Your task to perform on an android device: turn off notifications in google photos Image 0: 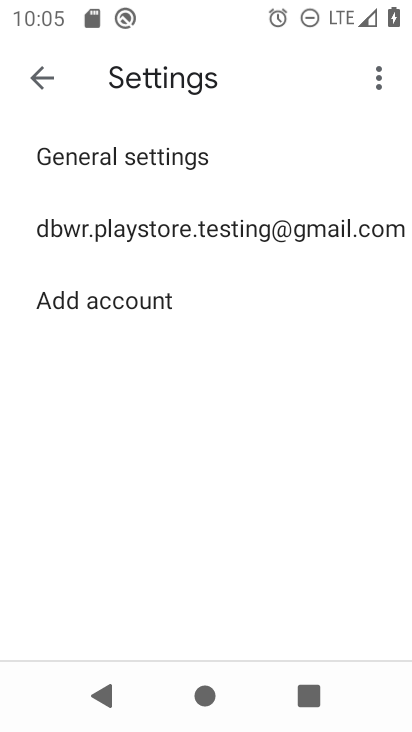
Step 0: press home button
Your task to perform on an android device: turn off notifications in google photos Image 1: 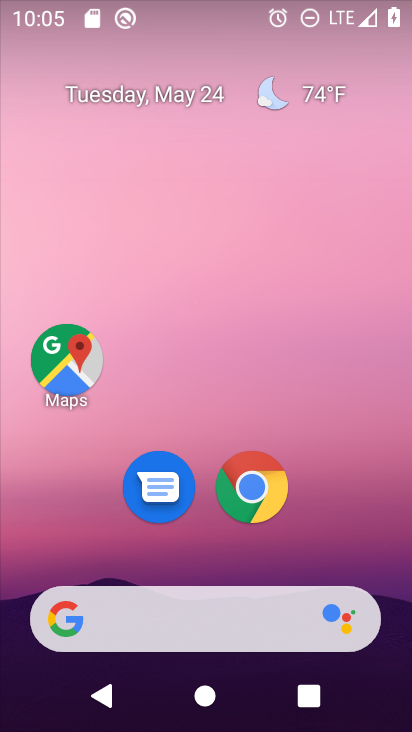
Step 1: drag from (342, 569) to (339, 12)
Your task to perform on an android device: turn off notifications in google photos Image 2: 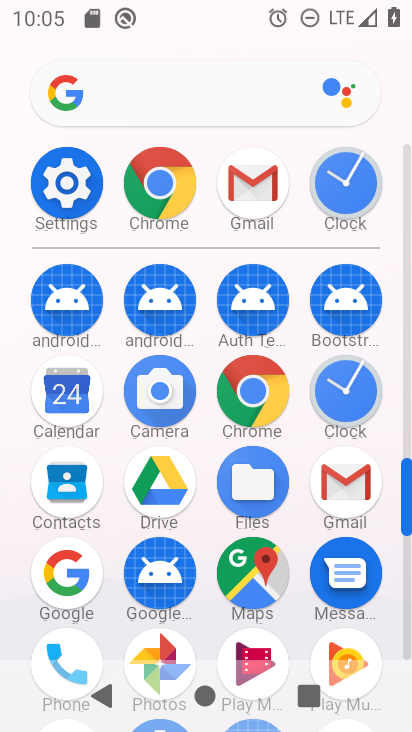
Step 2: click (408, 398)
Your task to perform on an android device: turn off notifications in google photos Image 3: 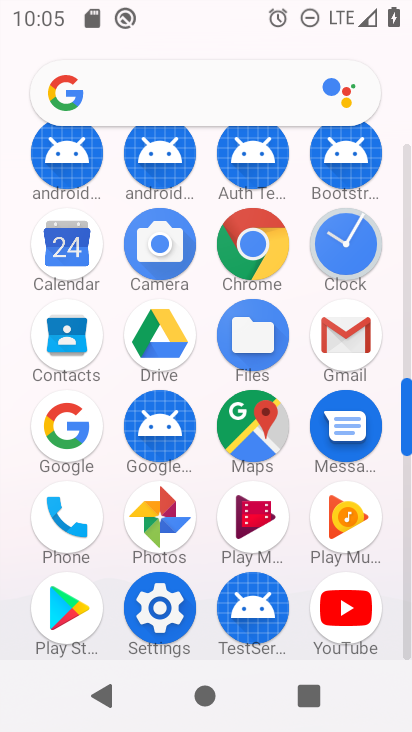
Step 3: click (160, 521)
Your task to perform on an android device: turn off notifications in google photos Image 4: 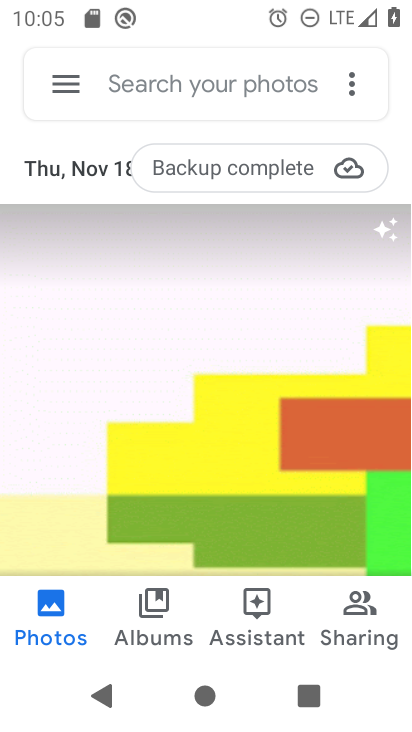
Step 4: click (58, 88)
Your task to perform on an android device: turn off notifications in google photos Image 5: 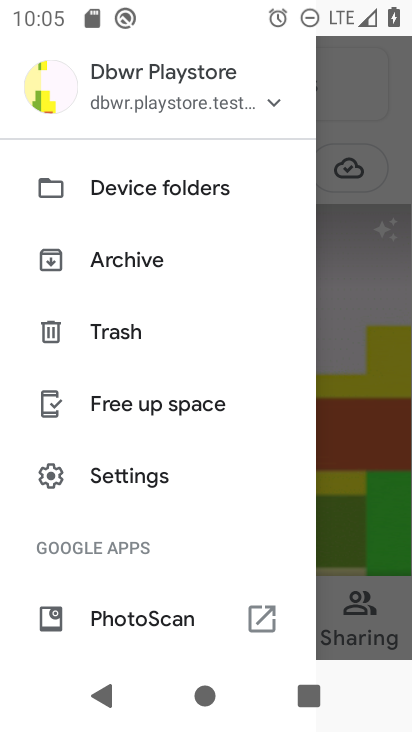
Step 5: click (148, 478)
Your task to perform on an android device: turn off notifications in google photos Image 6: 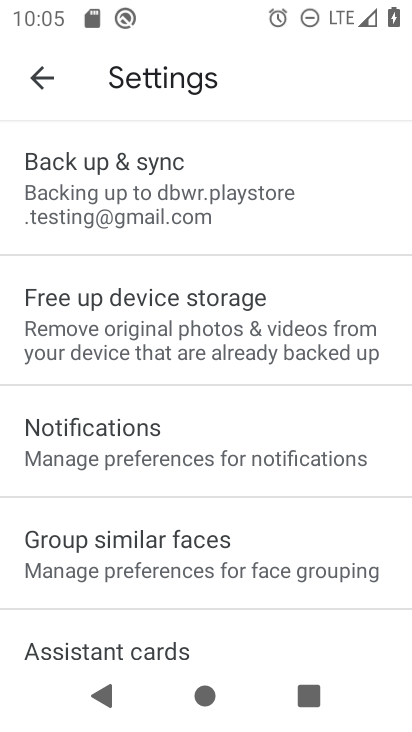
Step 6: click (112, 448)
Your task to perform on an android device: turn off notifications in google photos Image 7: 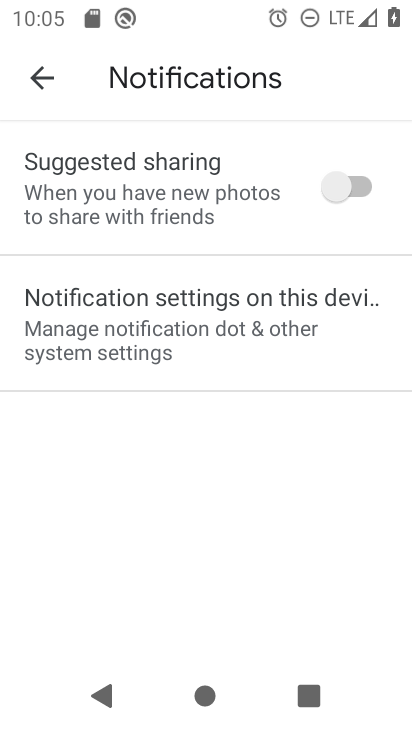
Step 7: click (125, 328)
Your task to perform on an android device: turn off notifications in google photos Image 8: 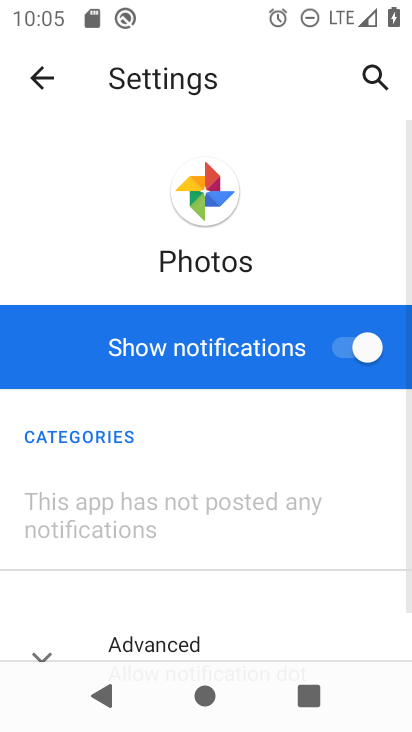
Step 8: click (345, 350)
Your task to perform on an android device: turn off notifications in google photos Image 9: 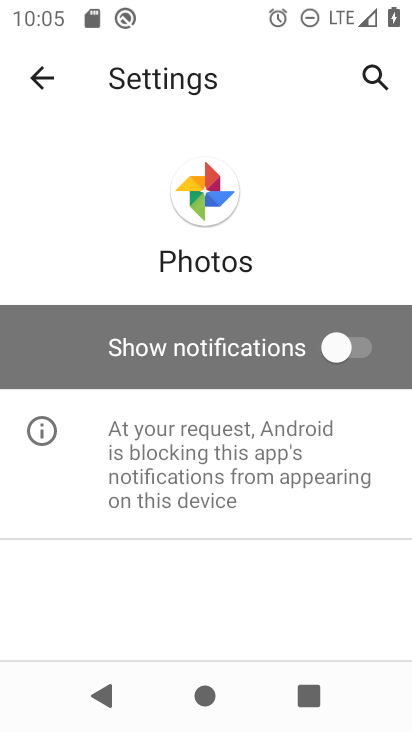
Step 9: task complete